Your task to perform on an android device: install app "AliExpress" Image 0: 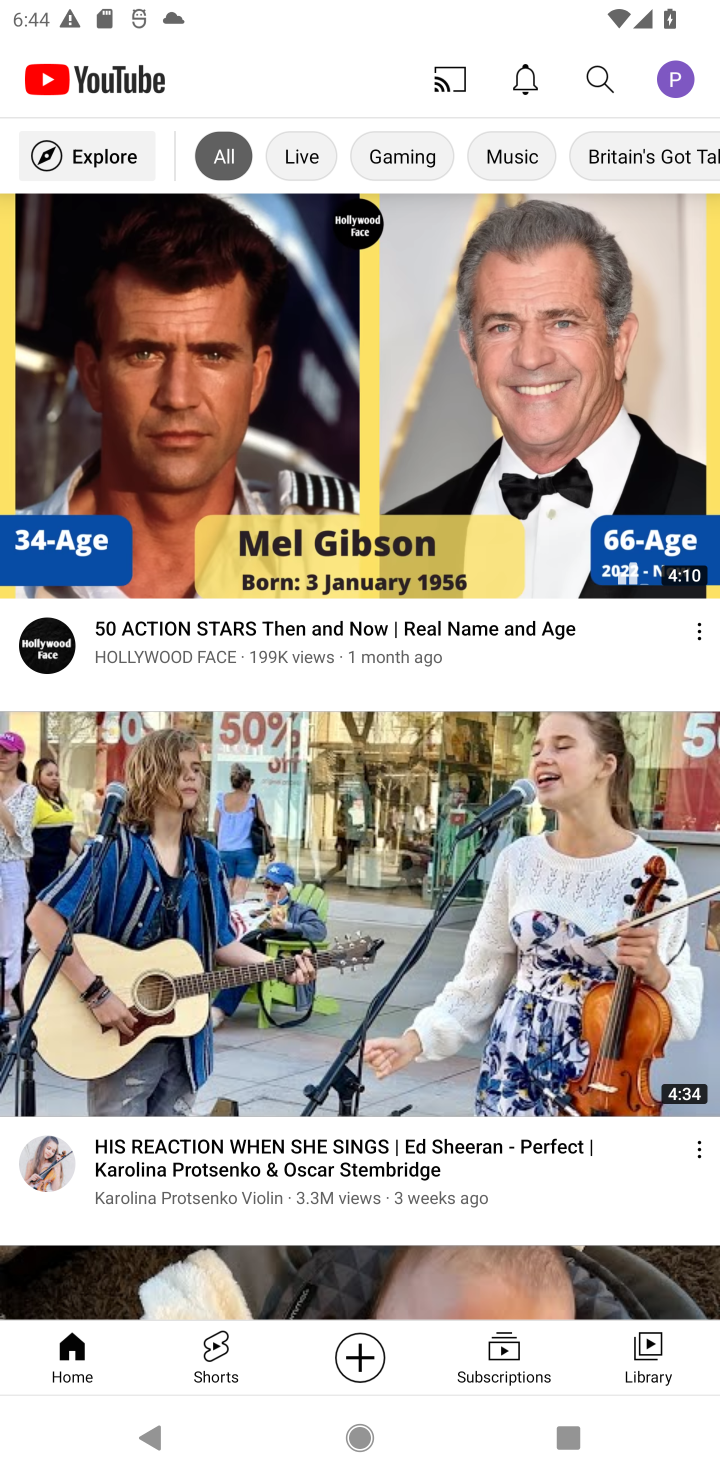
Step 0: press home button
Your task to perform on an android device: install app "AliExpress" Image 1: 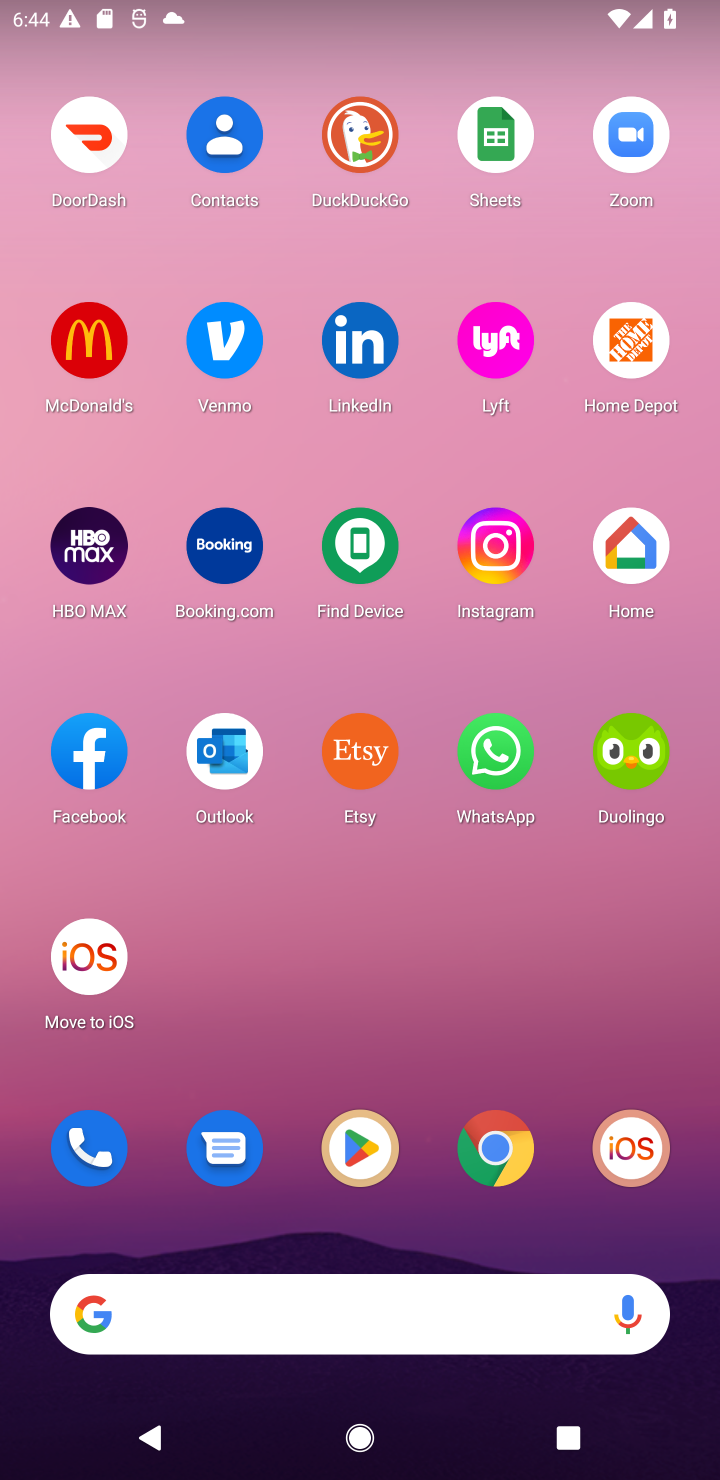
Step 1: drag from (325, 726) to (378, 6)
Your task to perform on an android device: install app "AliExpress" Image 2: 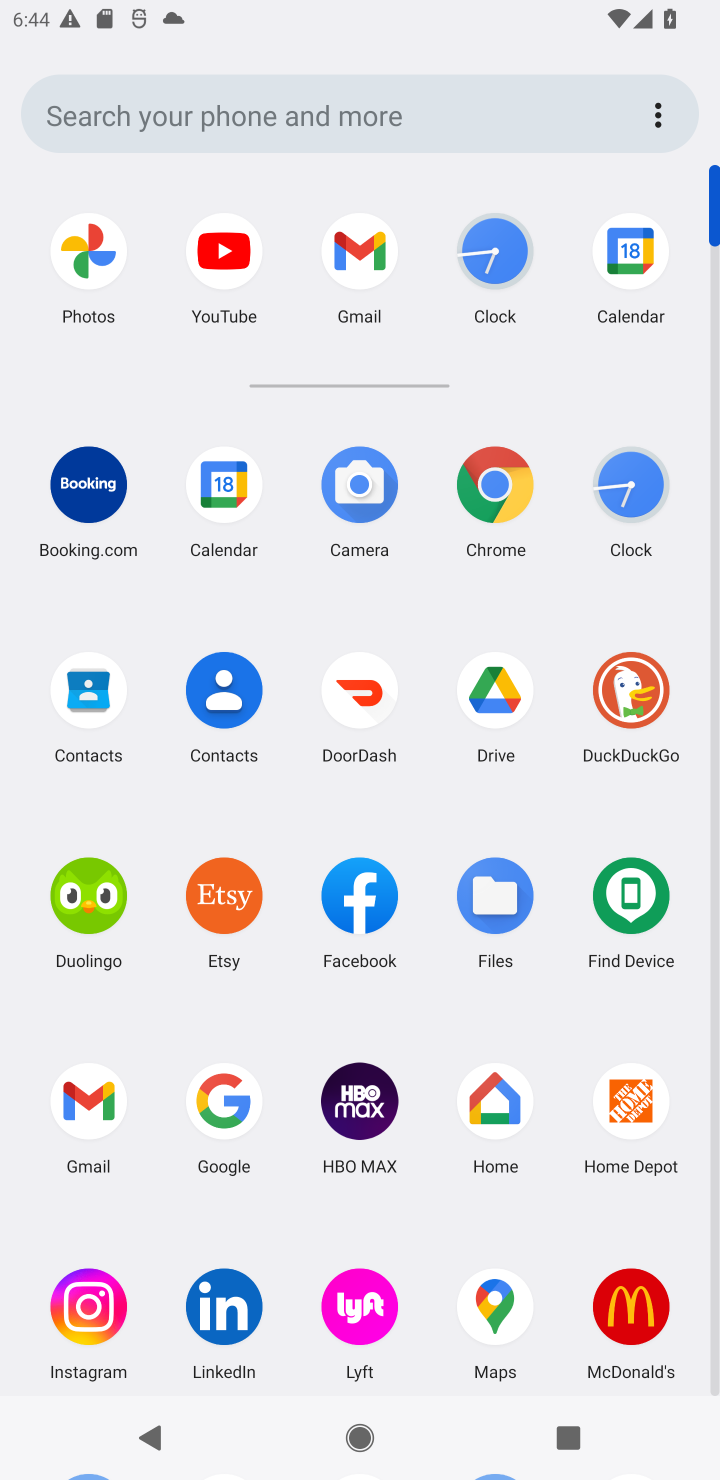
Step 2: drag from (430, 1340) to (568, 271)
Your task to perform on an android device: install app "AliExpress" Image 3: 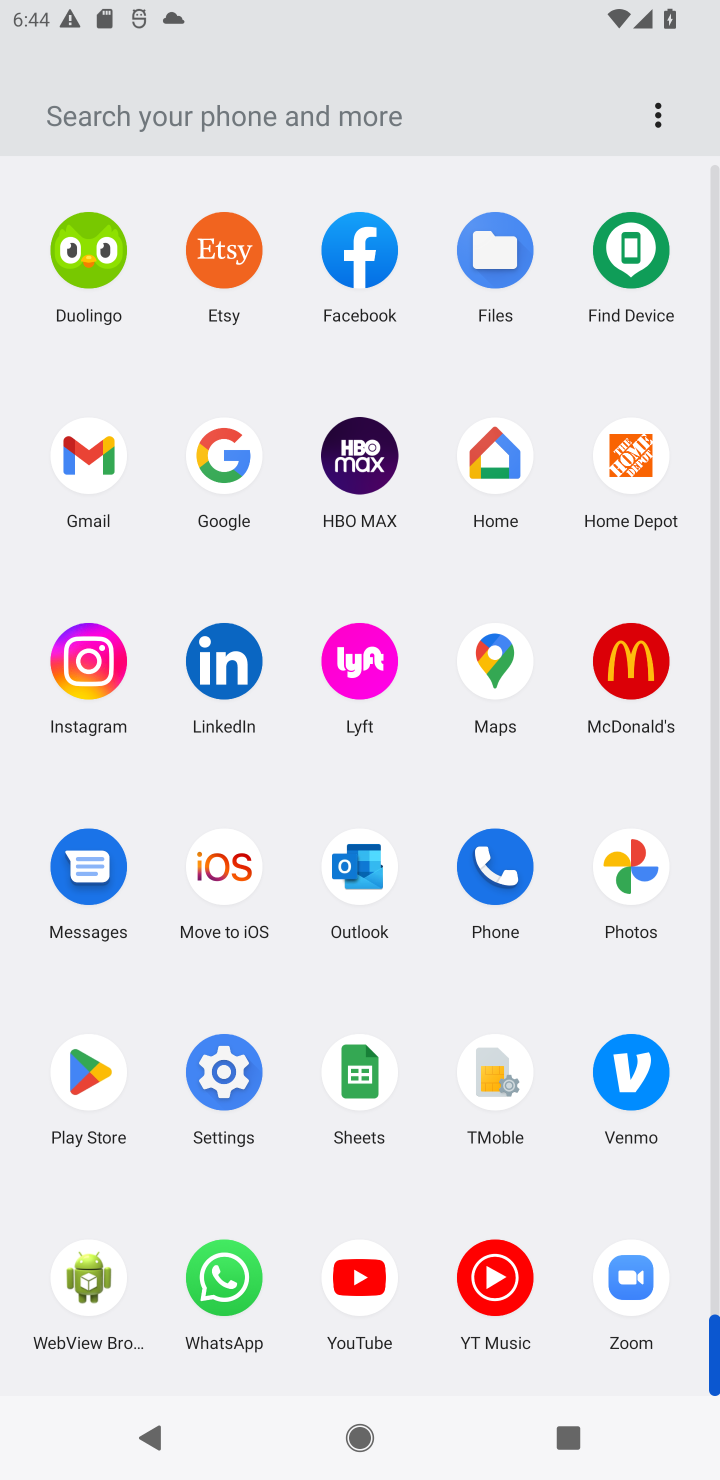
Step 3: click (82, 1063)
Your task to perform on an android device: install app "AliExpress" Image 4: 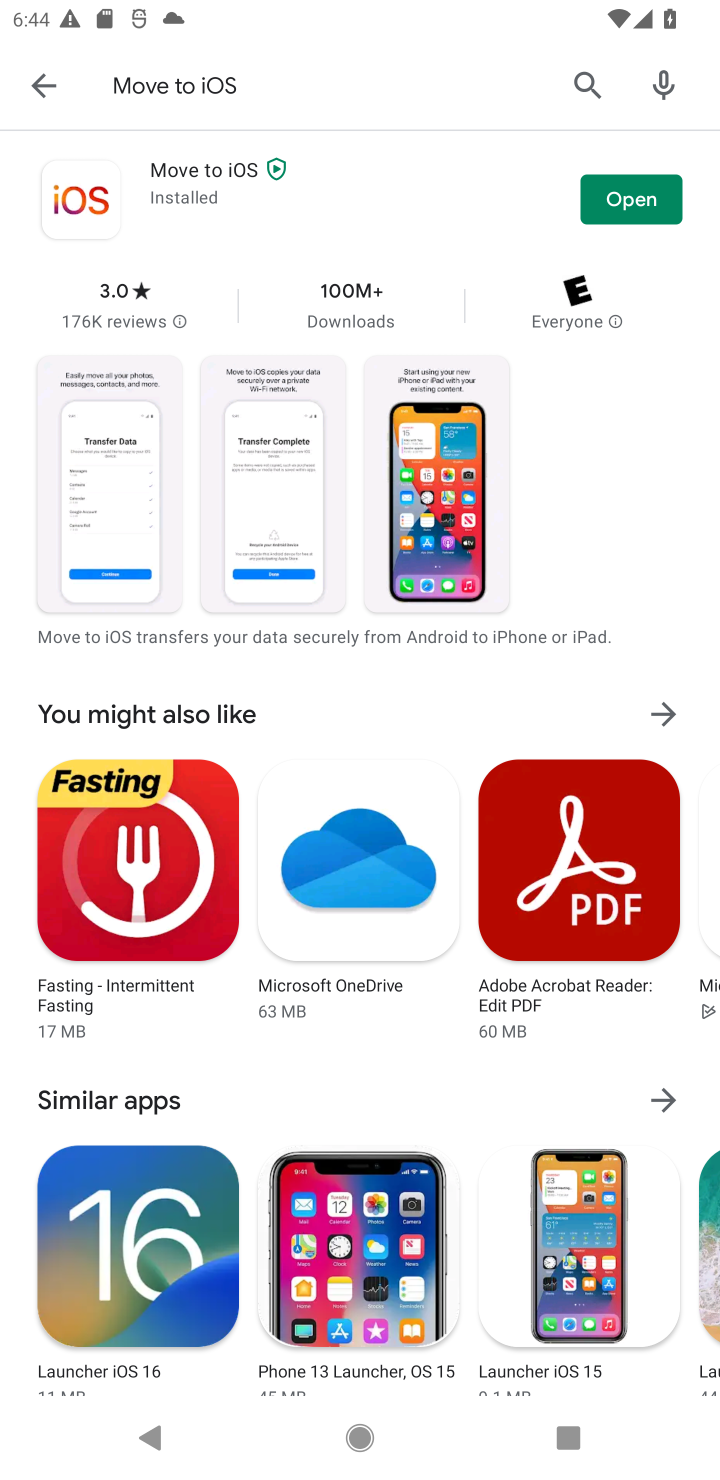
Step 4: click (47, 90)
Your task to perform on an android device: install app "AliExpress" Image 5: 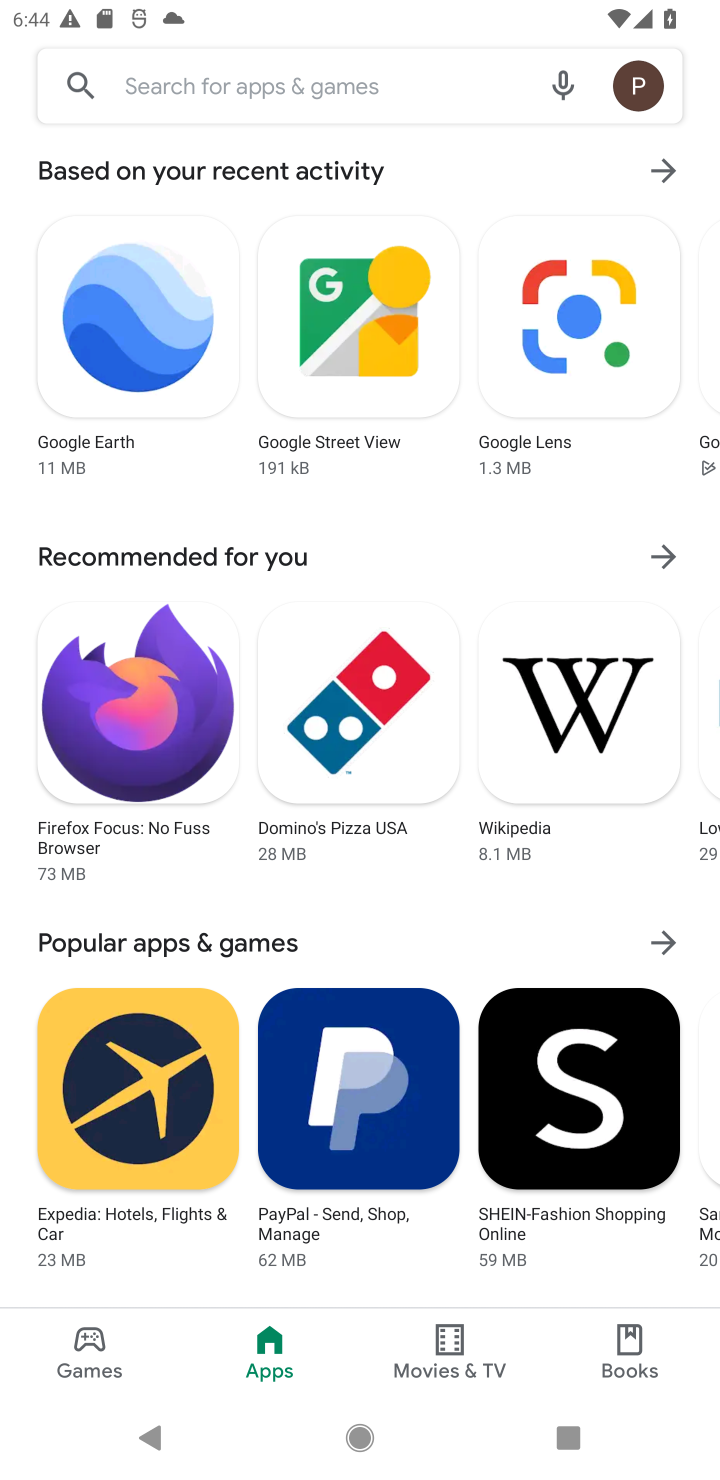
Step 5: click (158, 81)
Your task to perform on an android device: install app "AliExpress" Image 6: 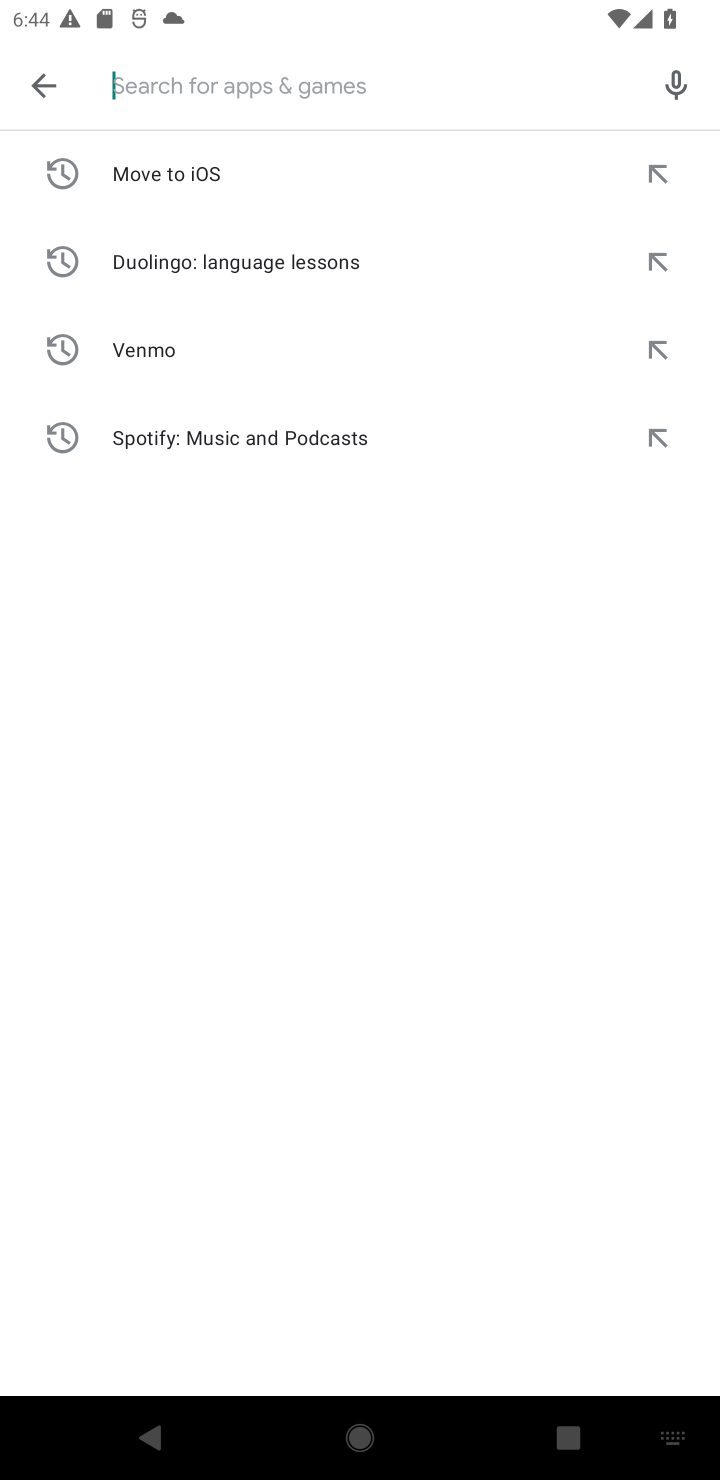
Step 6: type "AliExpress"
Your task to perform on an android device: install app "AliExpress" Image 7: 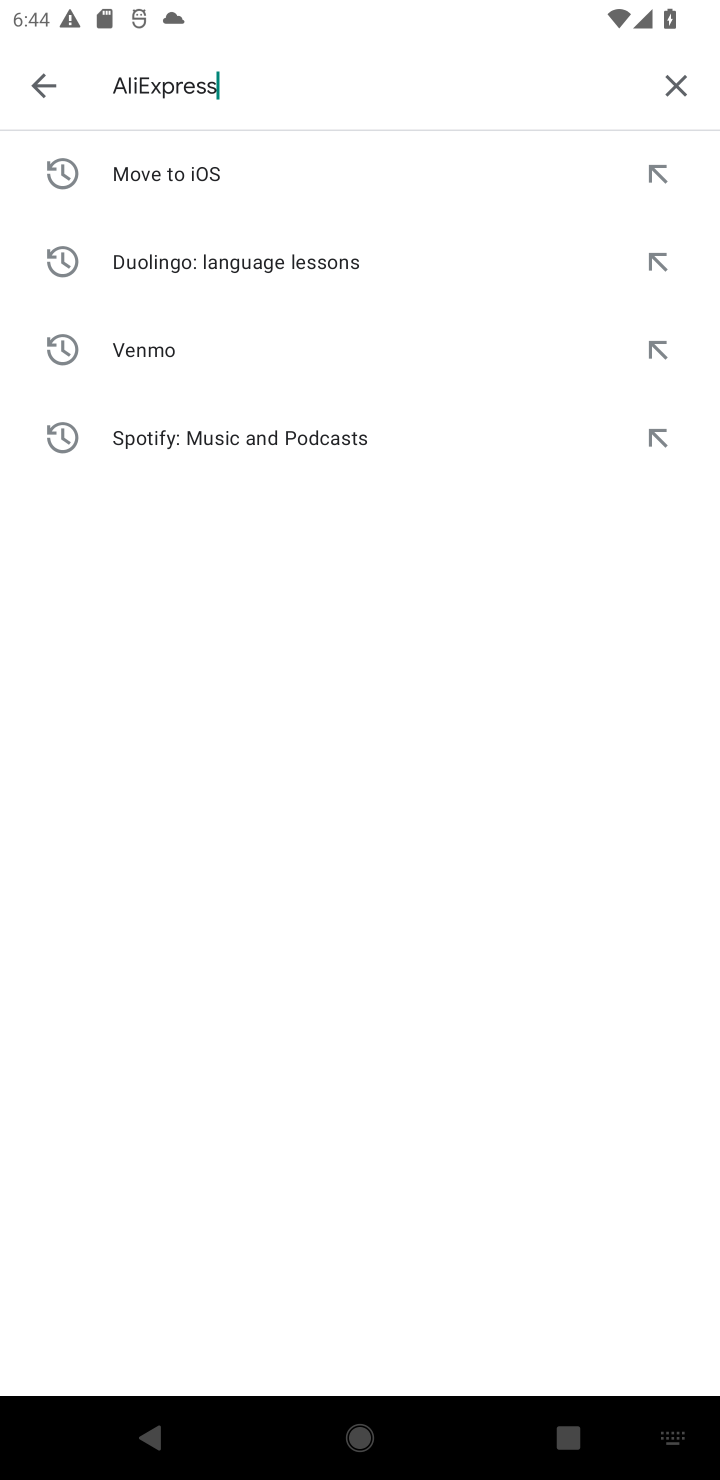
Step 7: press enter
Your task to perform on an android device: install app "AliExpress" Image 8: 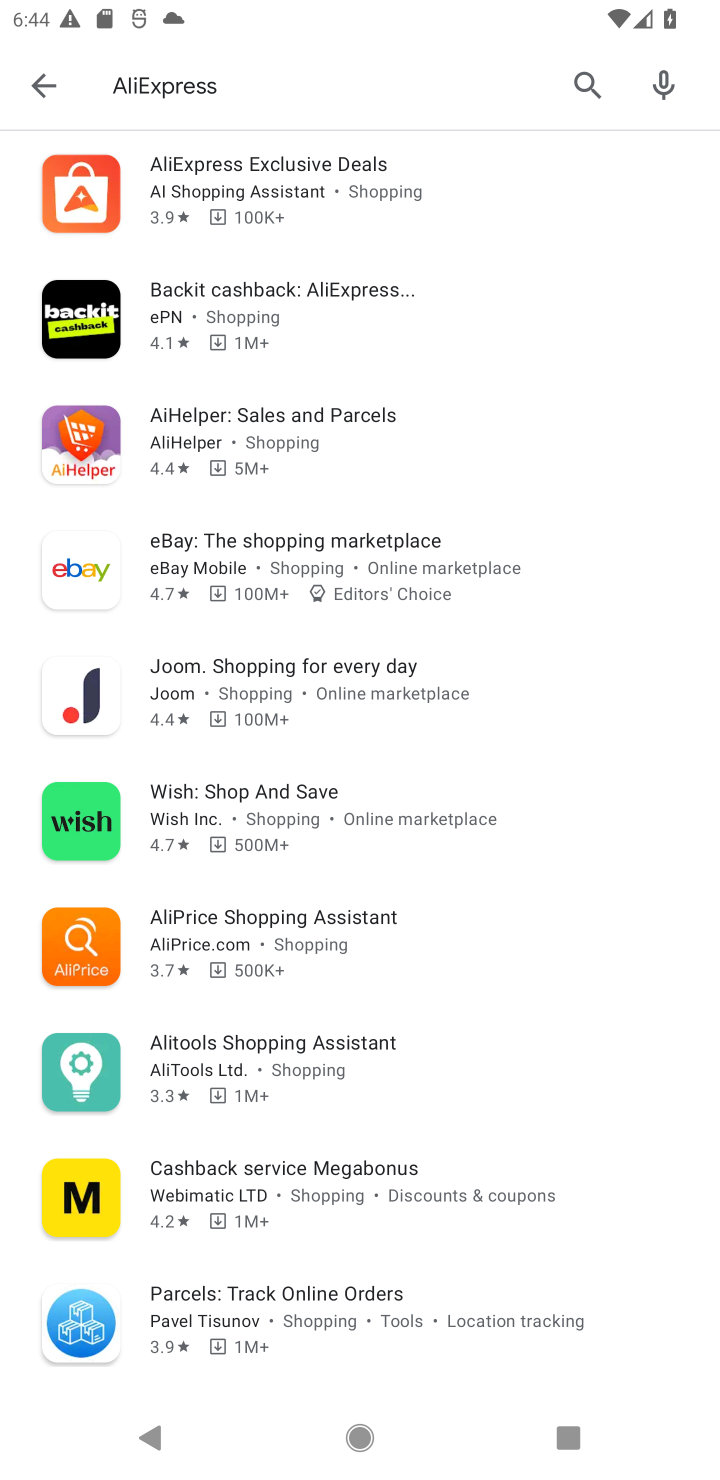
Step 8: click (290, 203)
Your task to perform on an android device: install app "AliExpress" Image 9: 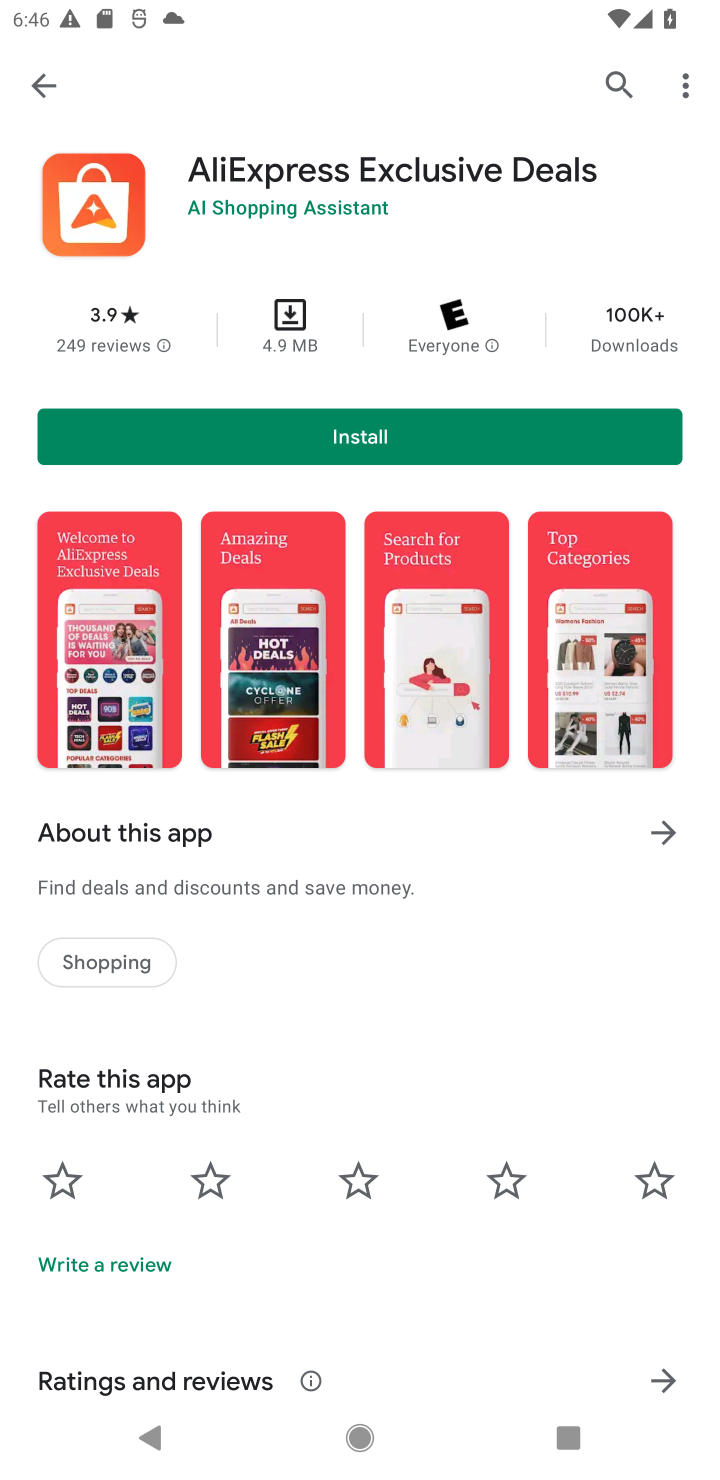
Step 9: click (384, 437)
Your task to perform on an android device: install app "AliExpress" Image 10: 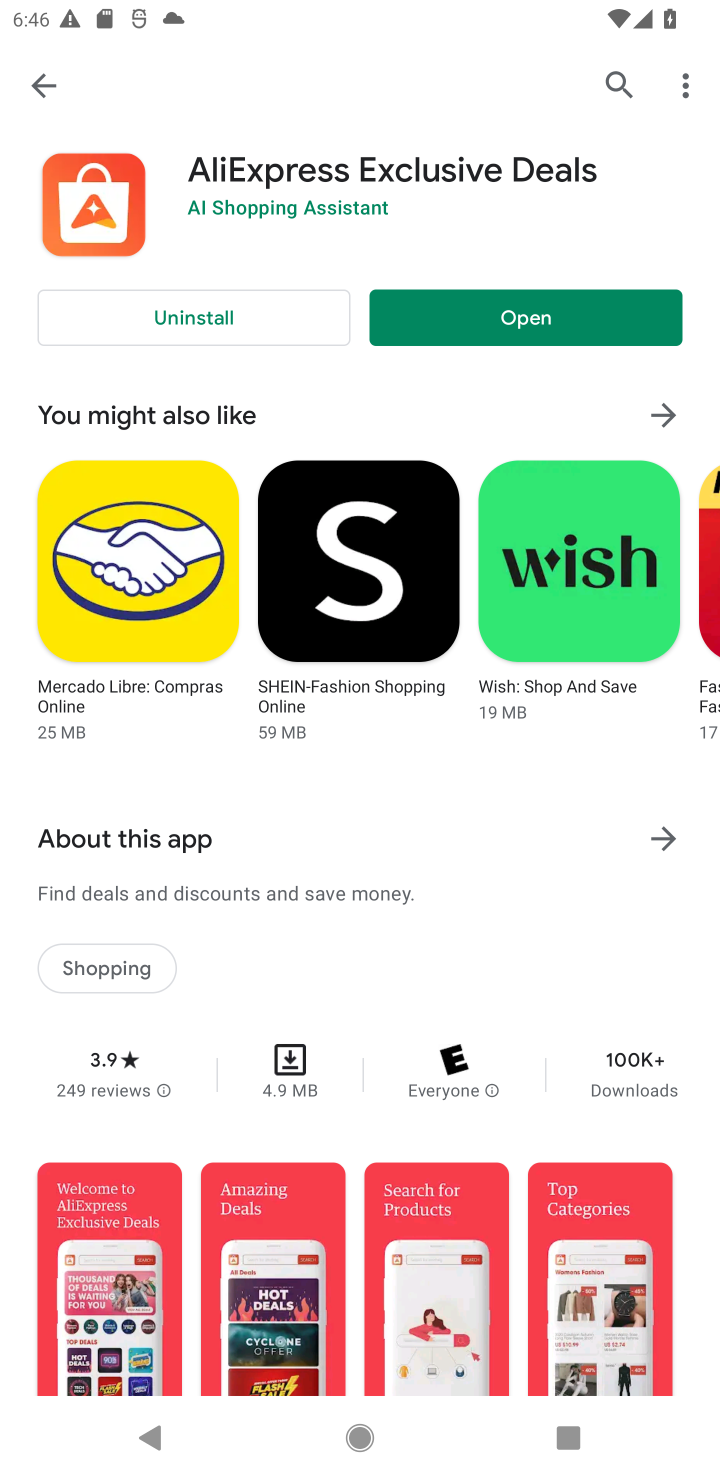
Step 10: click (486, 300)
Your task to perform on an android device: install app "AliExpress" Image 11: 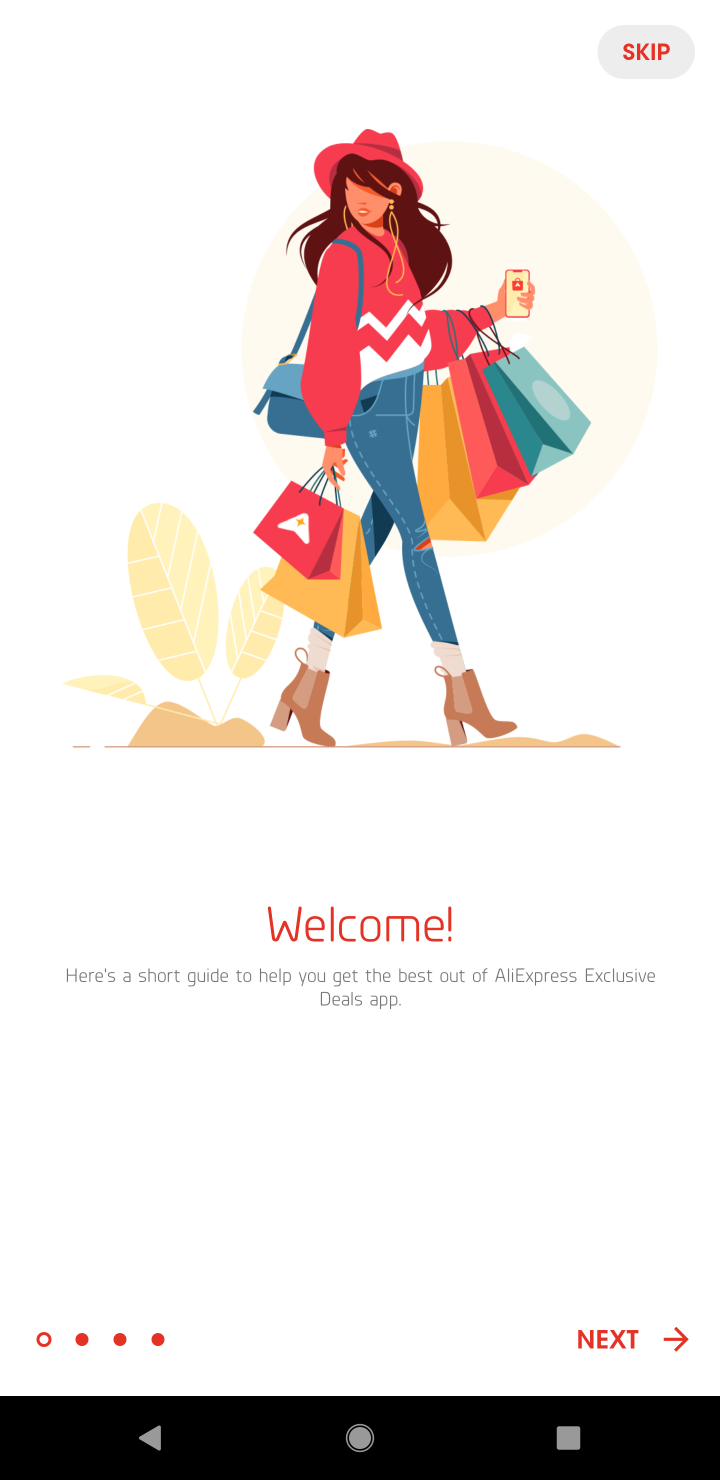
Step 11: task complete